Your task to perform on an android device: empty trash in google photos Image 0: 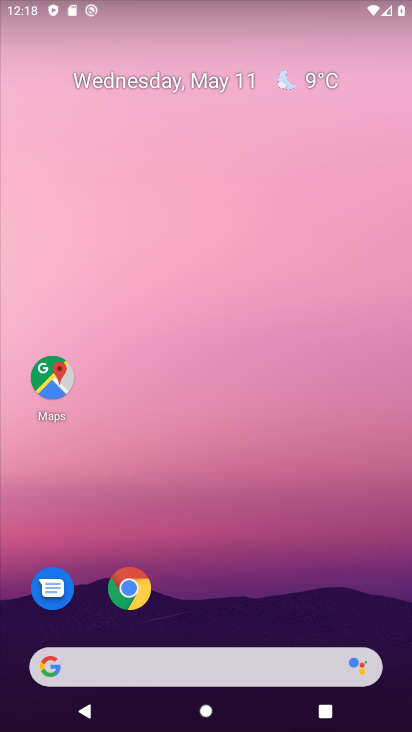
Step 0: drag from (342, 635) to (323, 41)
Your task to perform on an android device: empty trash in google photos Image 1: 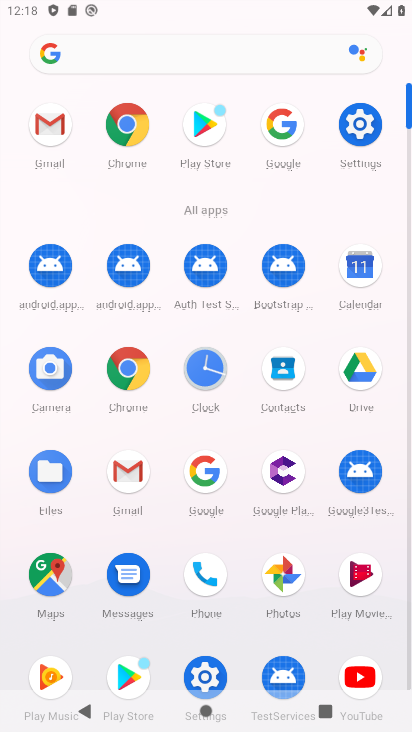
Step 1: click (282, 584)
Your task to perform on an android device: empty trash in google photos Image 2: 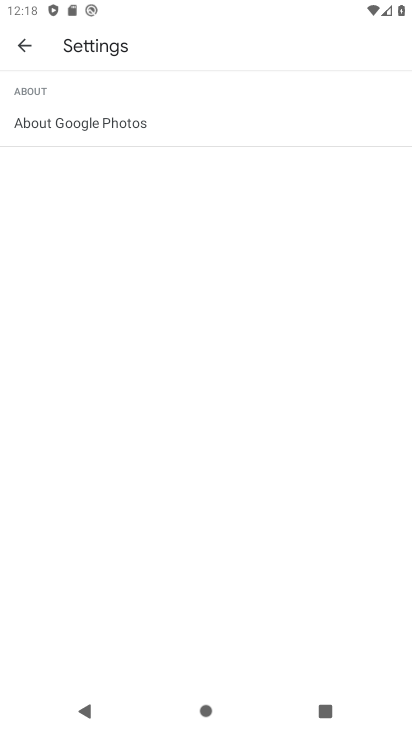
Step 2: click (17, 43)
Your task to perform on an android device: empty trash in google photos Image 3: 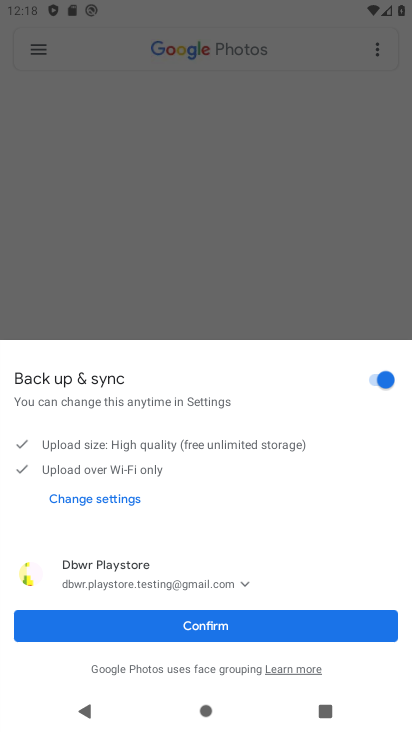
Step 3: click (47, 53)
Your task to perform on an android device: empty trash in google photos Image 4: 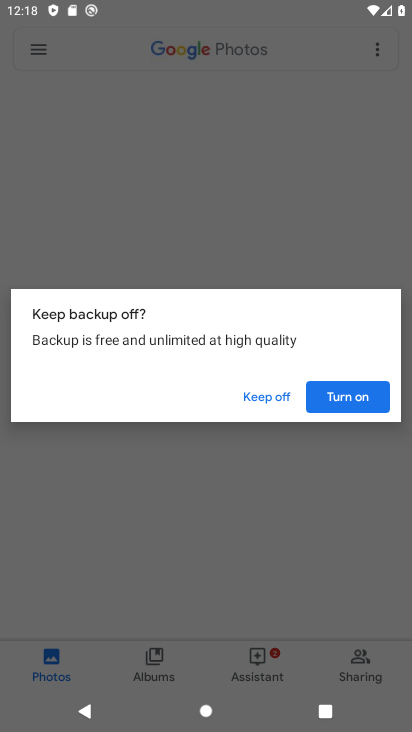
Step 4: click (335, 400)
Your task to perform on an android device: empty trash in google photos Image 5: 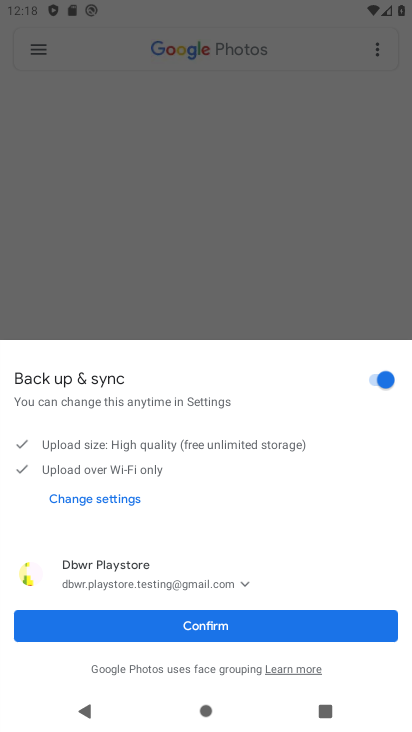
Step 5: click (206, 620)
Your task to perform on an android device: empty trash in google photos Image 6: 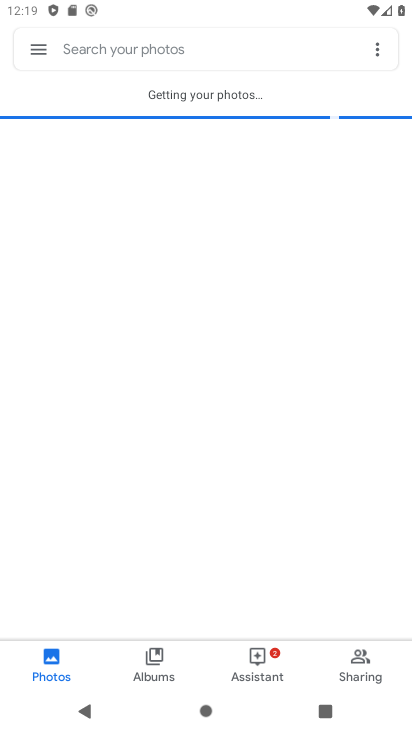
Step 6: click (34, 46)
Your task to perform on an android device: empty trash in google photos Image 7: 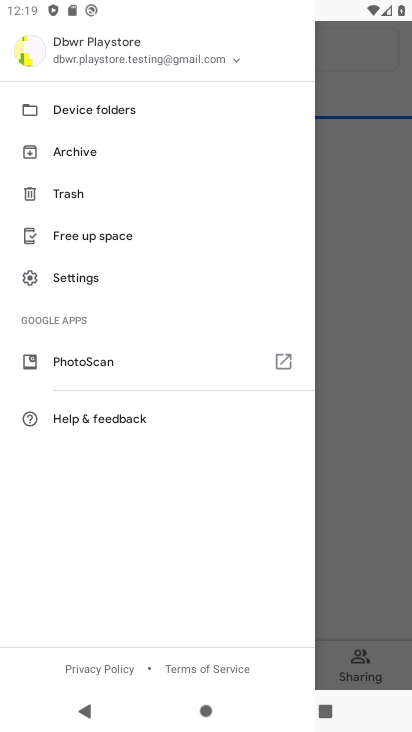
Step 7: click (50, 190)
Your task to perform on an android device: empty trash in google photos Image 8: 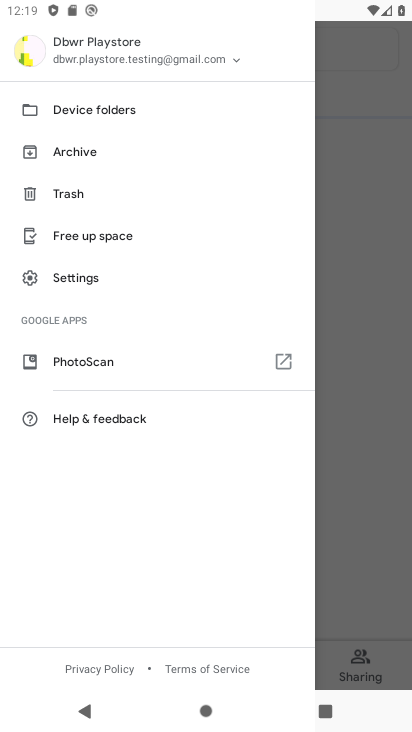
Step 8: click (72, 194)
Your task to perform on an android device: empty trash in google photos Image 9: 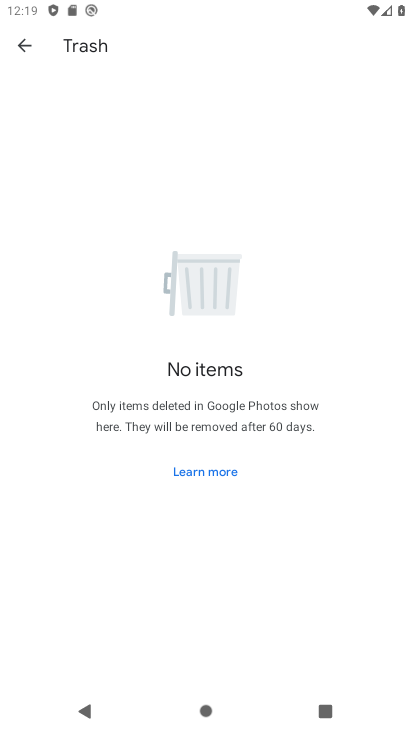
Step 9: task complete